Your task to perform on an android device: Search for razer huntsman on bestbuy, select the first entry, and add it to the cart. Image 0: 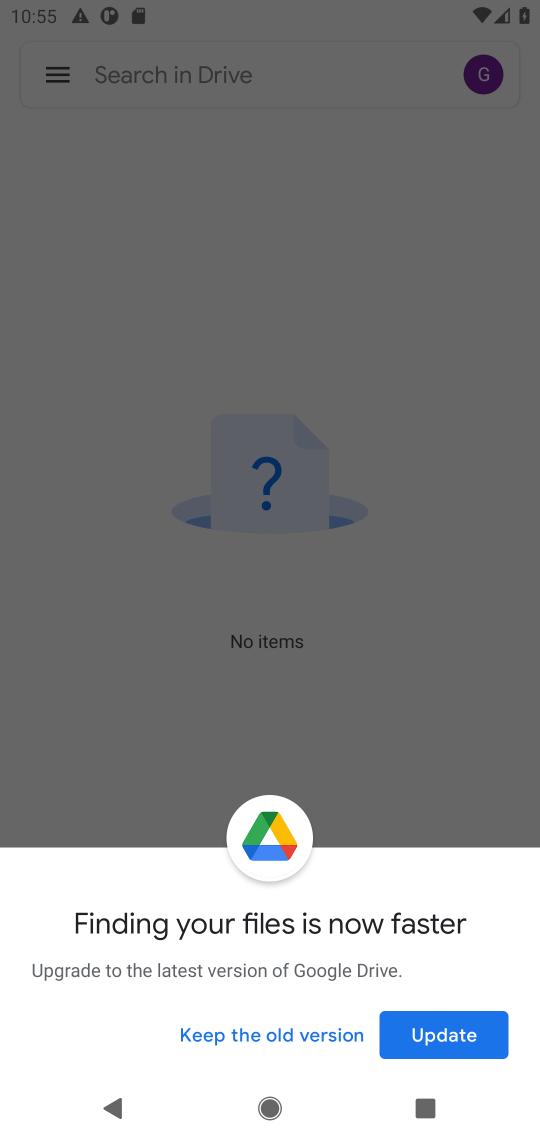
Step 0: press home button
Your task to perform on an android device: Search for razer huntsman on bestbuy, select the first entry, and add it to the cart. Image 1: 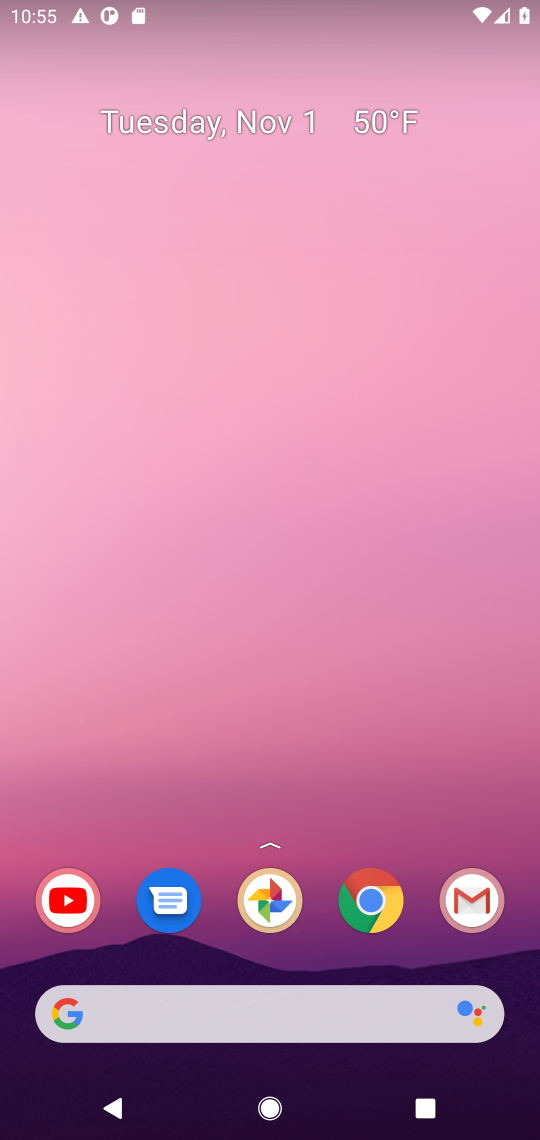
Step 1: click (374, 917)
Your task to perform on an android device: Search for razer huntsman on bestbuy, select the first entry, and add it to the cart. Image 2: 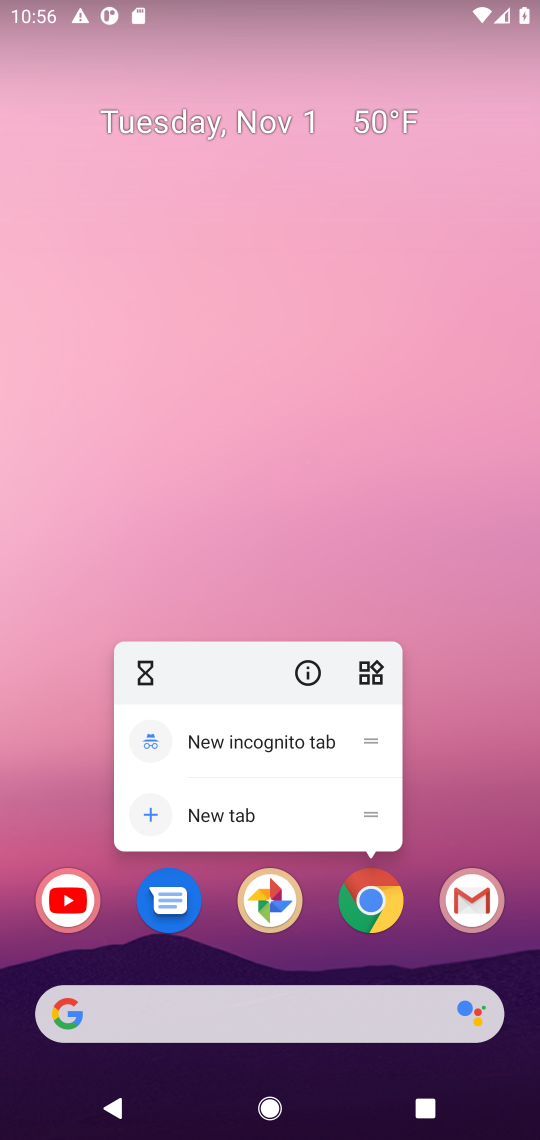
Step 2: click (364, 896)
Your task to perform on an android device: Search for razer huntsman on bestbuy, select the first entry, and add it to the cart. Image 3: 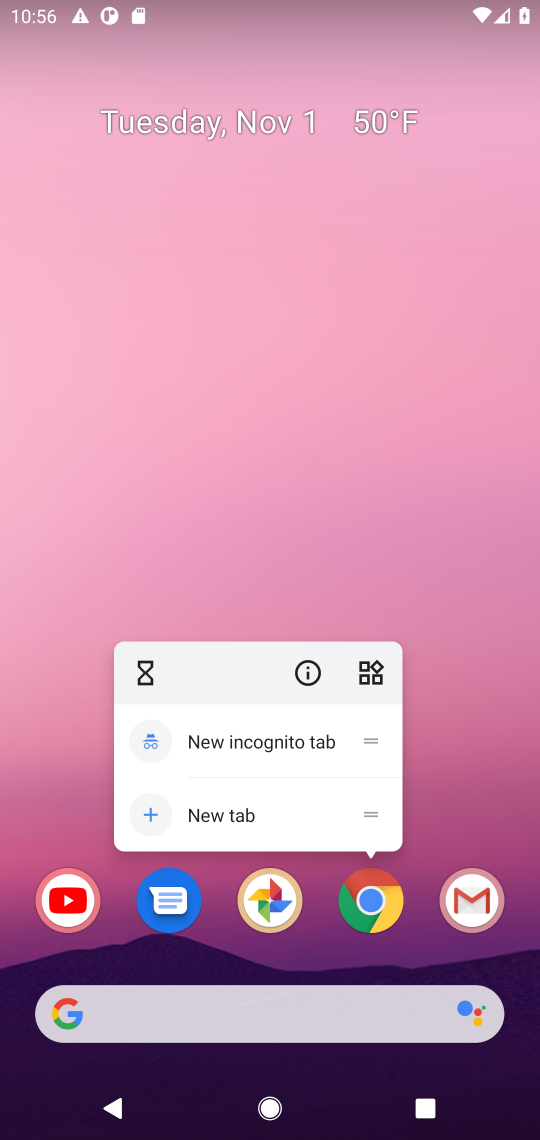
Step 3: click (360, 883)
Your task to perform on an android device: Search for razer huntsman on bestbuy, select the first entry, and add it to the cart. Image 4: 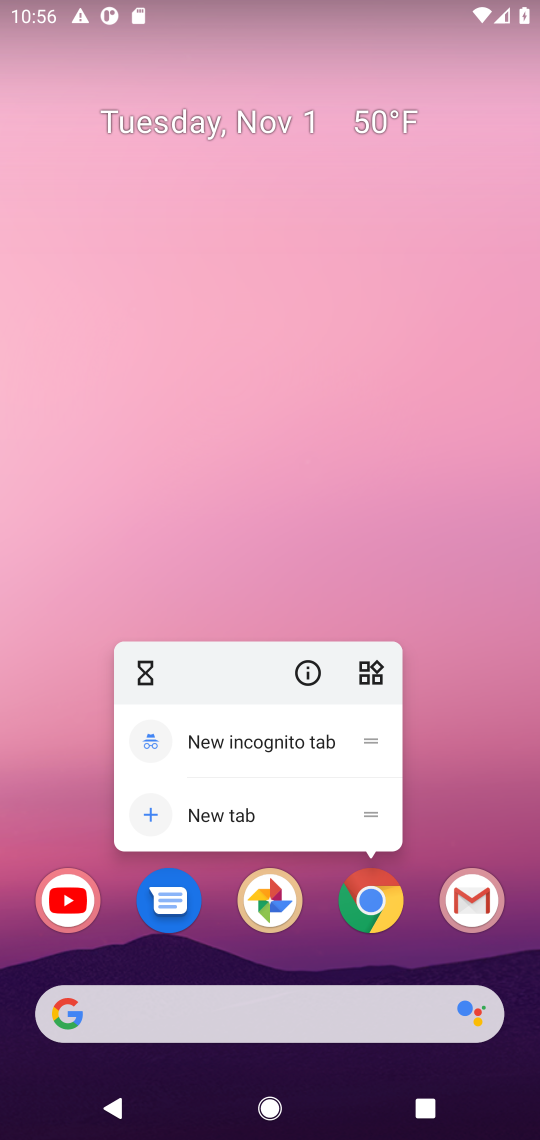
Step 4: click (367, 896)
Your task to perform on an android device: Search for razer huntsman on bestbuy, select the first entry, and add it to the cart. Image 5: 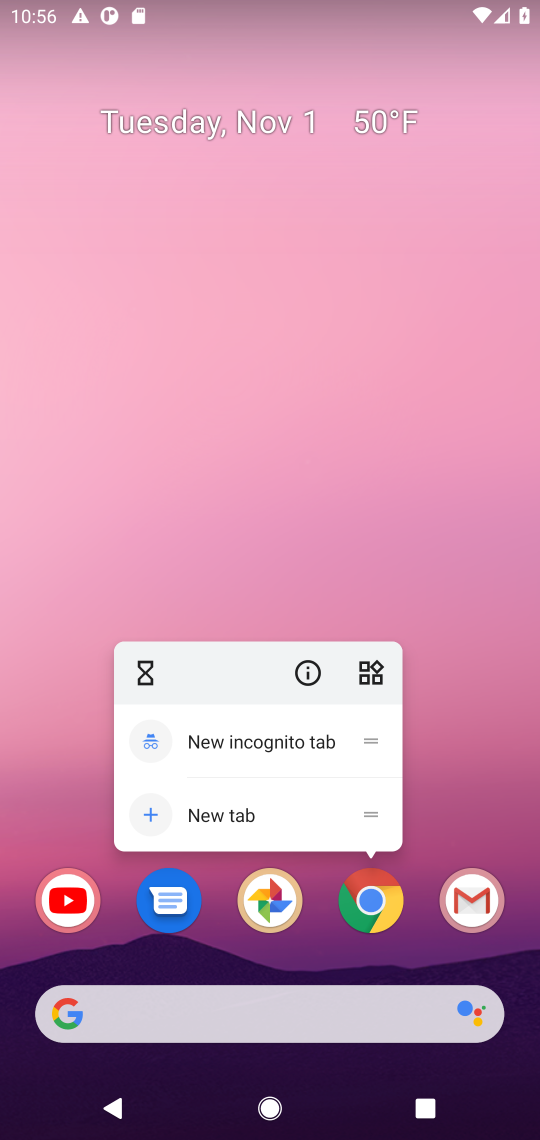
Step 5: click (367, 896)
Your task to perform on an android device: Search for razer huntsman on bestbuy, select the first entry, and add it to the cart. Image 6: 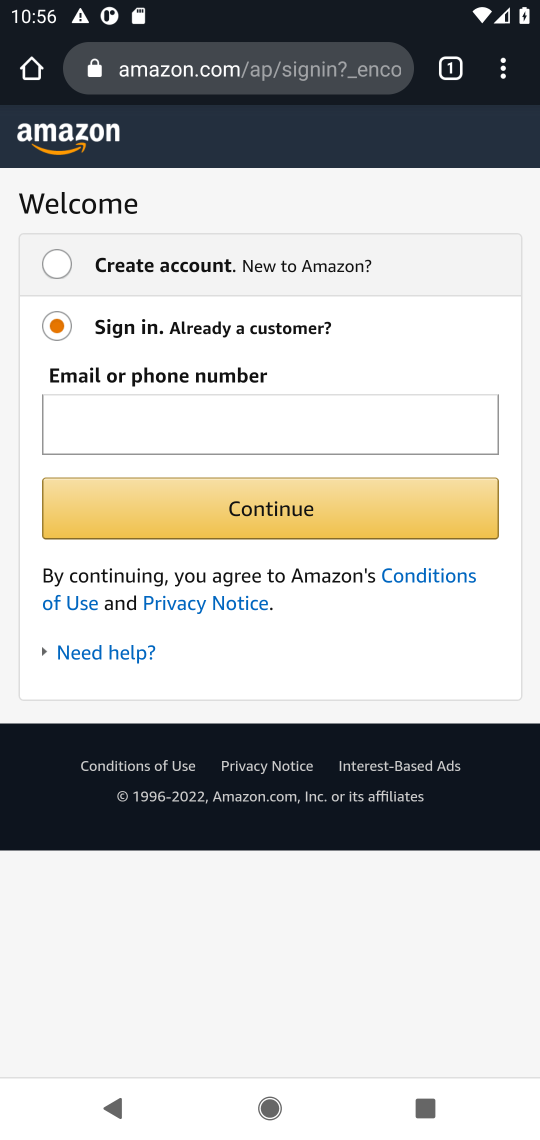
Step 6: click (153, 83)
Your task to perform on an android device: Search for razer huntsman on bestbuy, select the first entry, and add it to the cart. Image 7: 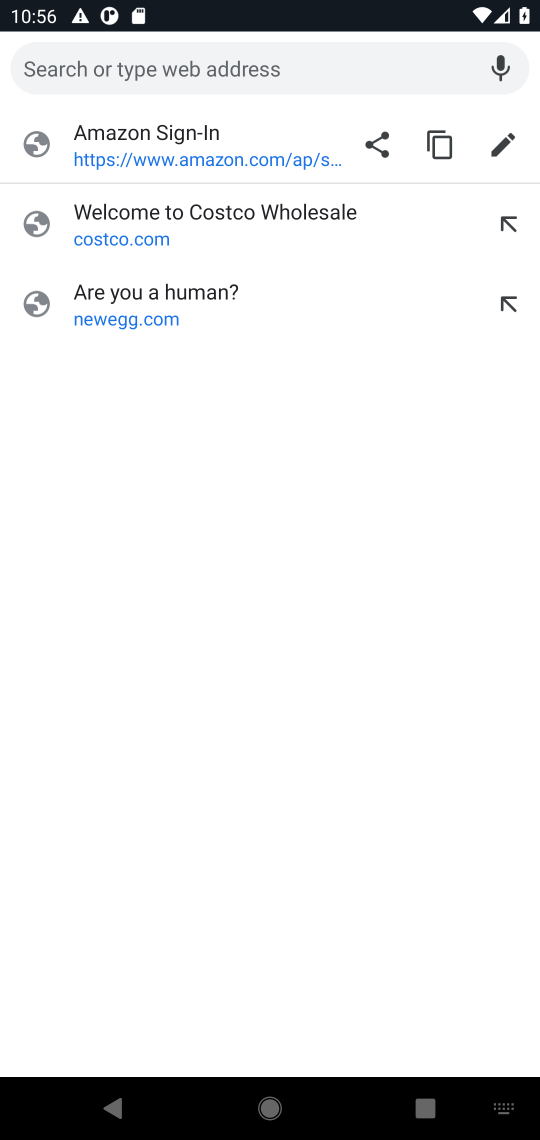
Step 7: type "bestbuy"
Your task to perform on an android device: Search for razer huntsman on bestbuy, select the first entry, and add it to the cart. Image 8: 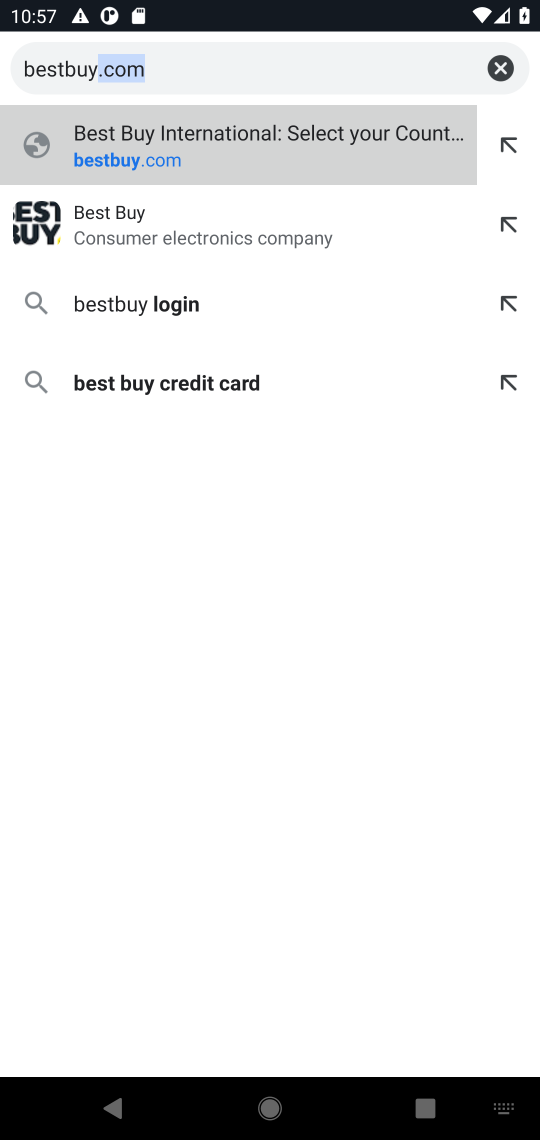
Step 8: click (209, 206)
Your task to perform on an android device: Search for razer huntsman on bestbuy, select the first entry, and add it to the cart. Image 9: 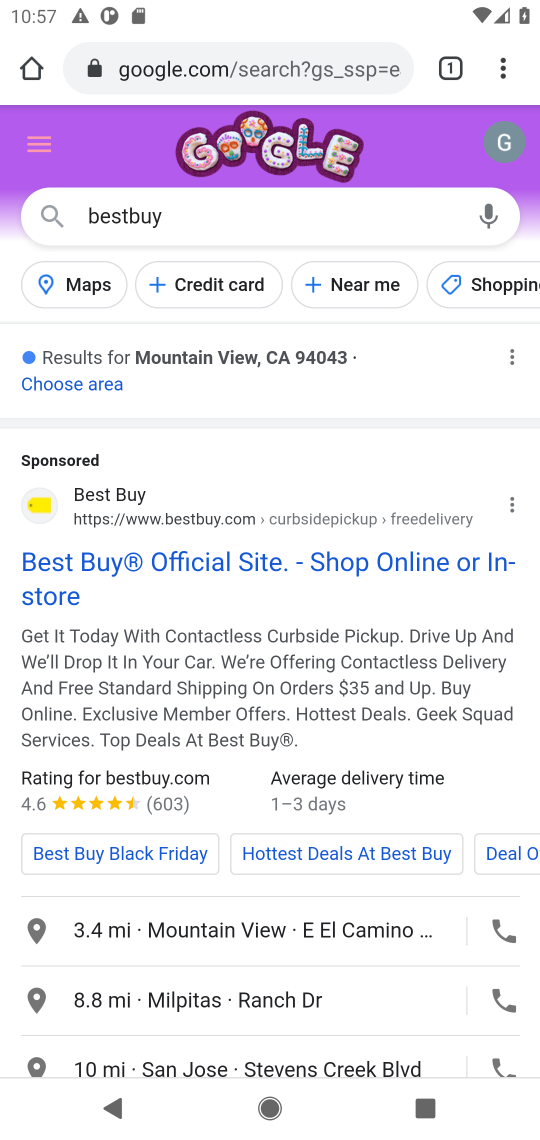
Step 9: click (78, 593)
Your task to perform on an android device: Search for razer huntsman on bestbuy, select the first entry, and add it to the cart. Image 10: 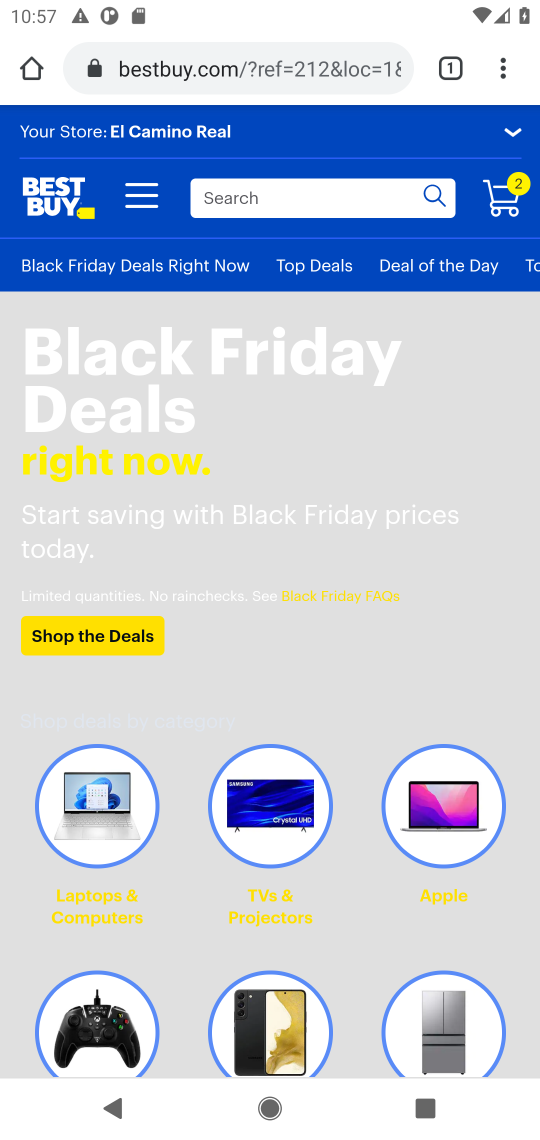
Step 10: click (240, 207)
Your task to perform on an android device: Search for razer huntsman on bestbuy, select the first entry, and add it to the cart. Image 11: 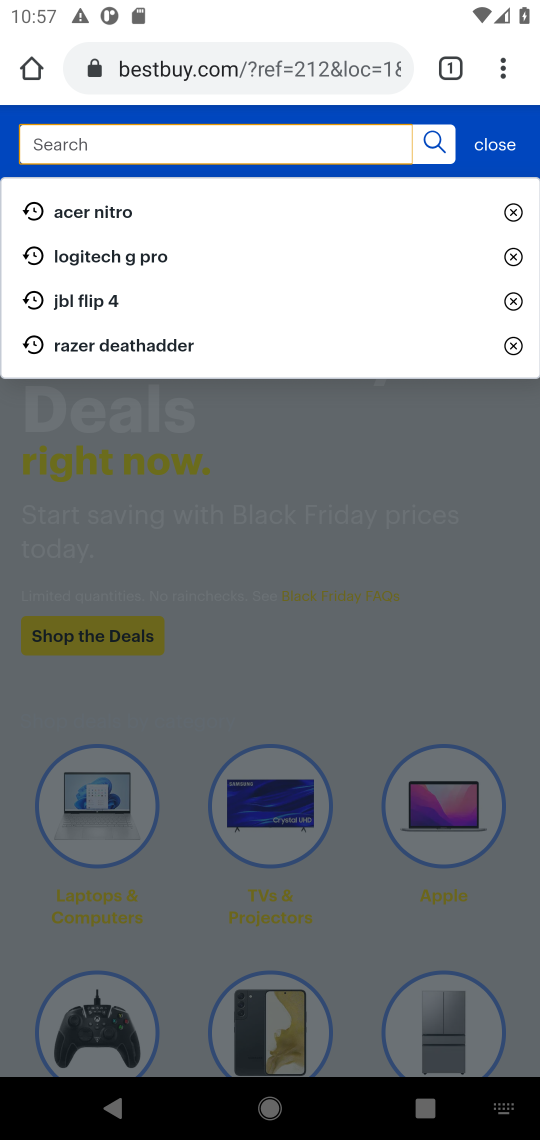
Step 11: type "razer huntsman"
Your task to perform on an android device: Search for razer huntsman on bestbuy, select the first entry, and add it to the cart. Image 12: 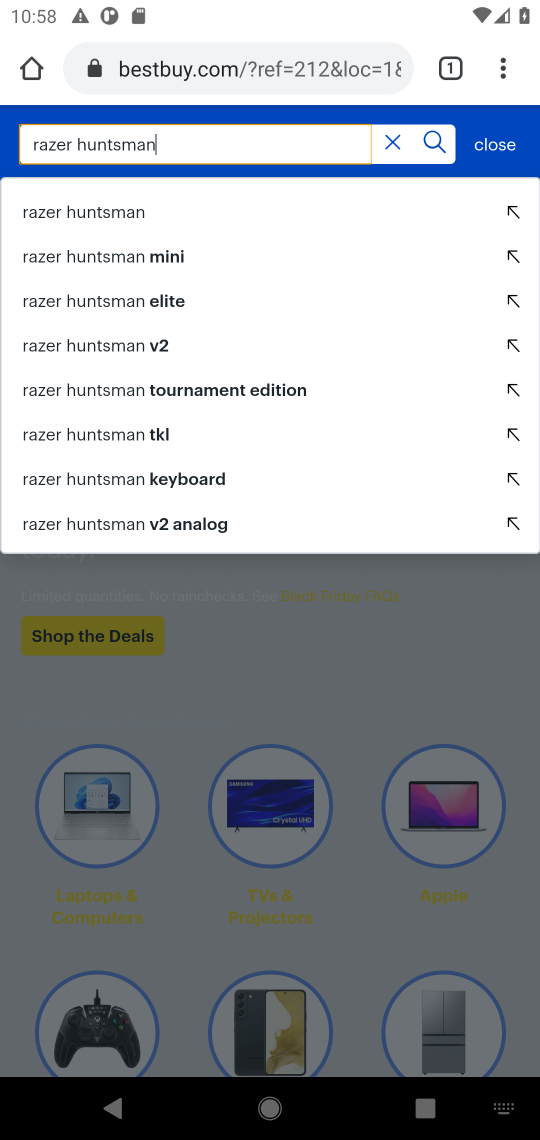
Step 12: click (117, 210)
Your task to perform on an android device: Search for razer huntsman on bestbuy, select the first entry, and add it to the cart. Image 13: 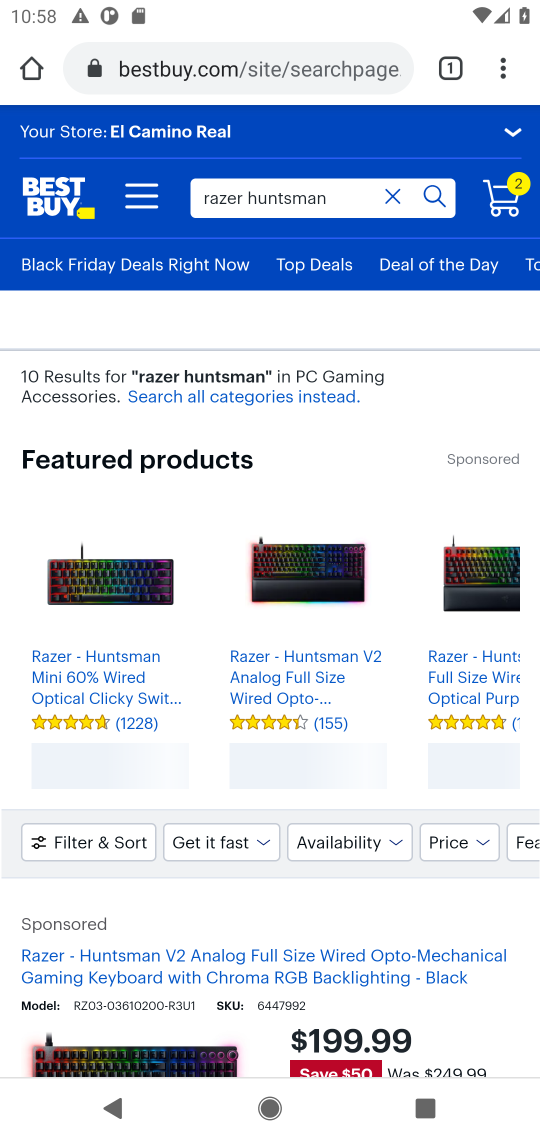
Step 13: click (217, 959)
Your task to perform on an android device: Search for razer huntsman on bestbuy, select the first entry, and add it to the cart. Image 14: 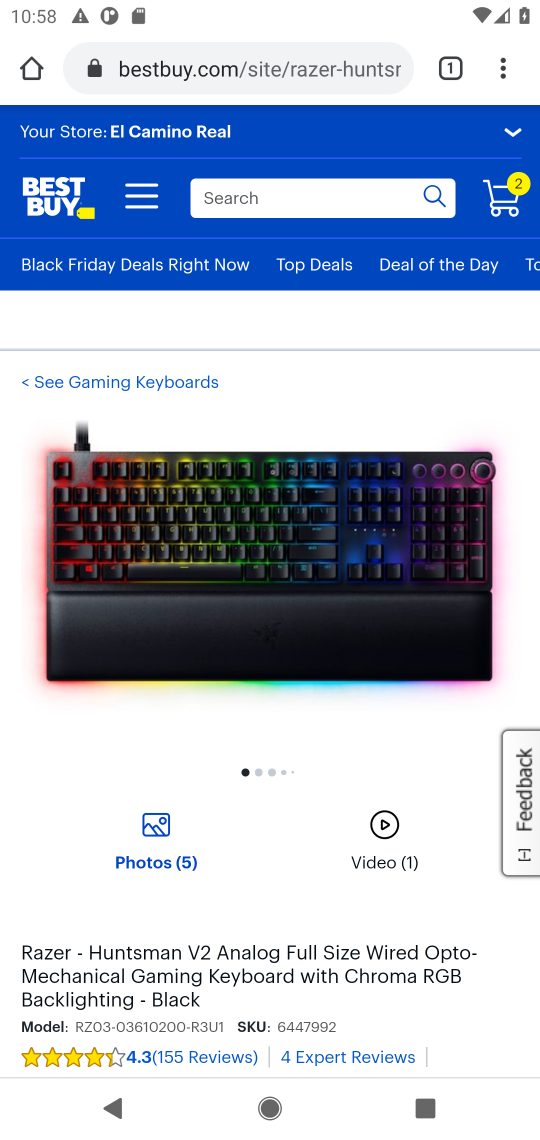
Step 14: drag from (199, 999) to (313, 346)
Your task to perform on an android device: Search for razer huntsman on bestbuy, select the first entry, and add it to the cart. Image 15: 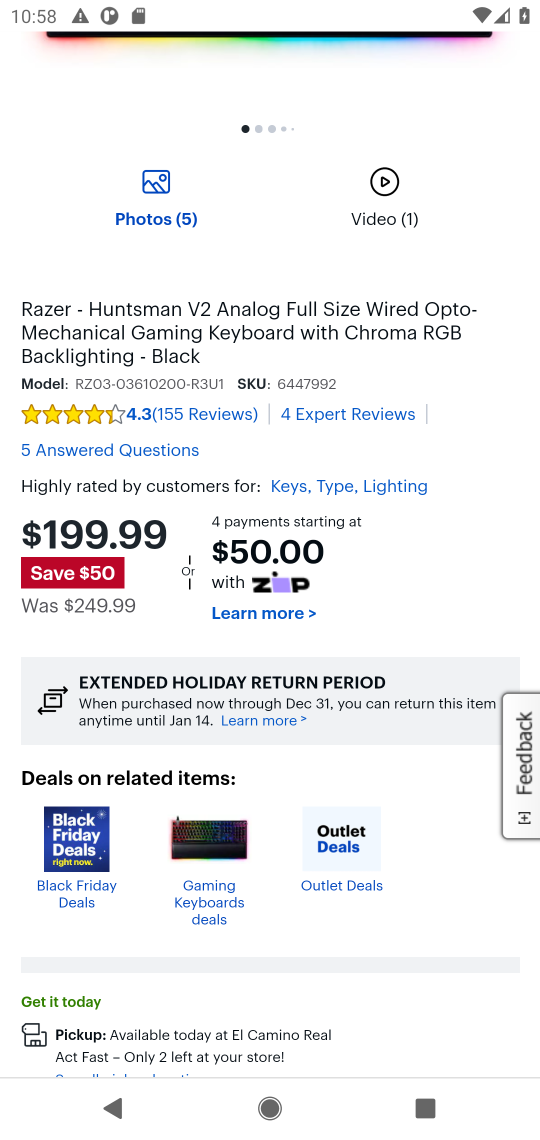
Step 15: drag from (249, 1015) to (298, 520)
Your task to perform on an android device: Search for razer huntsman on bestbuy, select the first entry, and add it to the cart. Image 16: 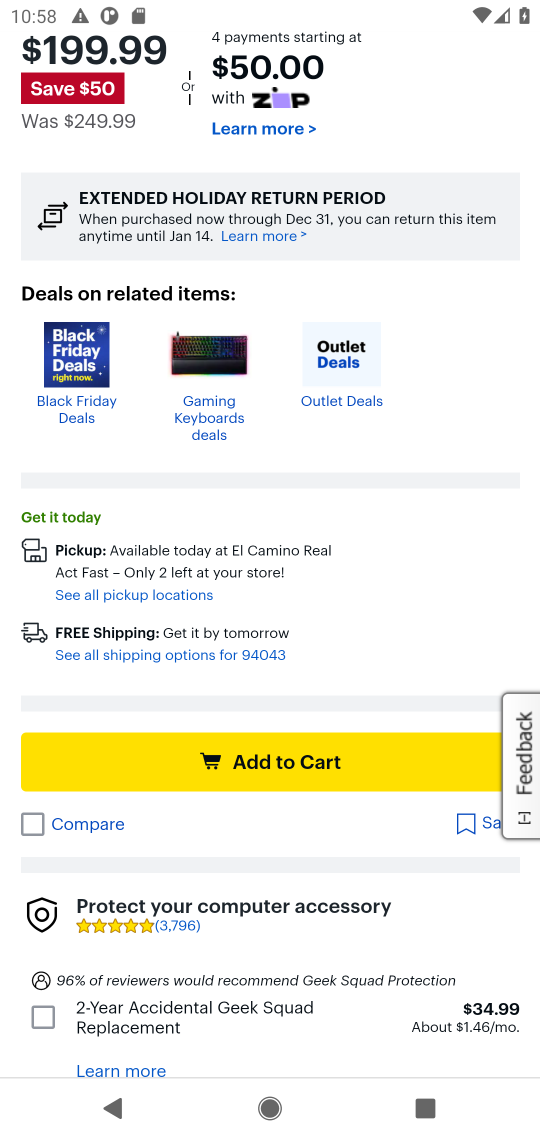
Step 16: click (399, 770)
Your task to perform on an android device: Search for razer huntsman on bestbuy, select the first entry, and add it to the cart. Image 17: 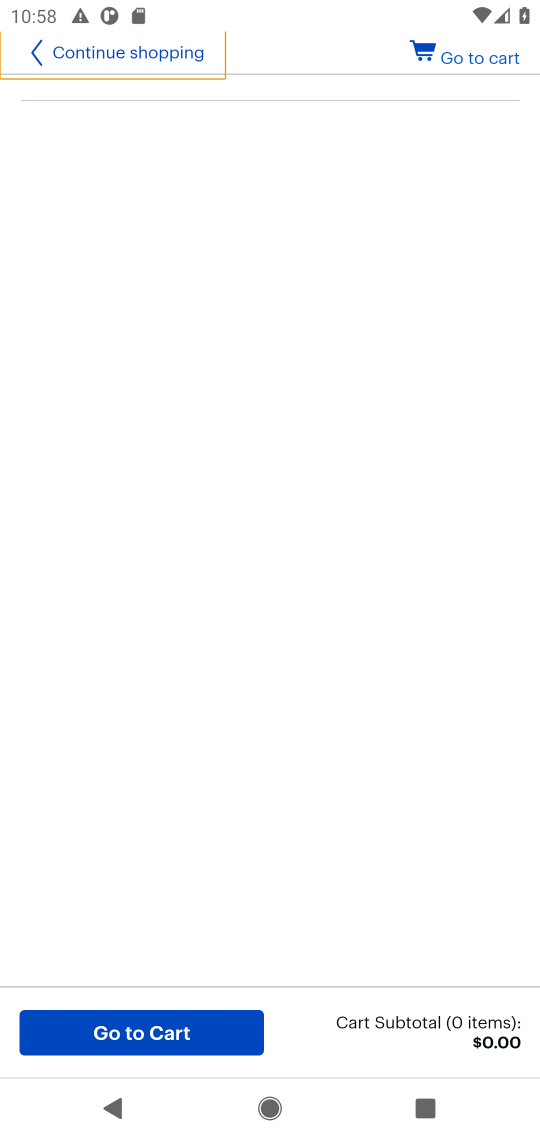
Step 17: task complete